Your task to perform on an android device: allow notifications from all sites in the chrome app Image 0: 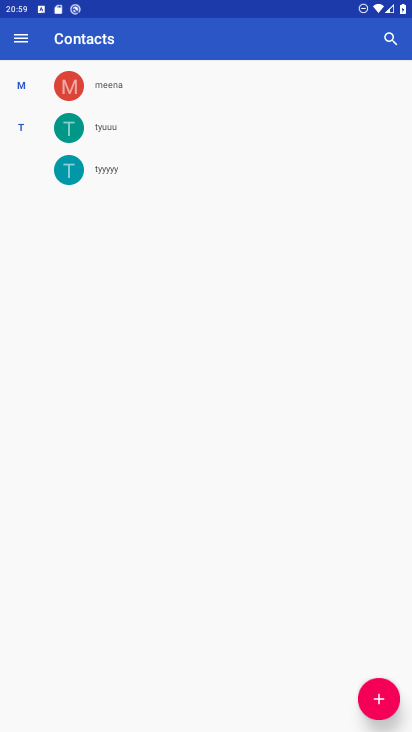
Step 0: press home button
Your task to perform on an android device: allow notifications from all sites in the chrome app Image 1: 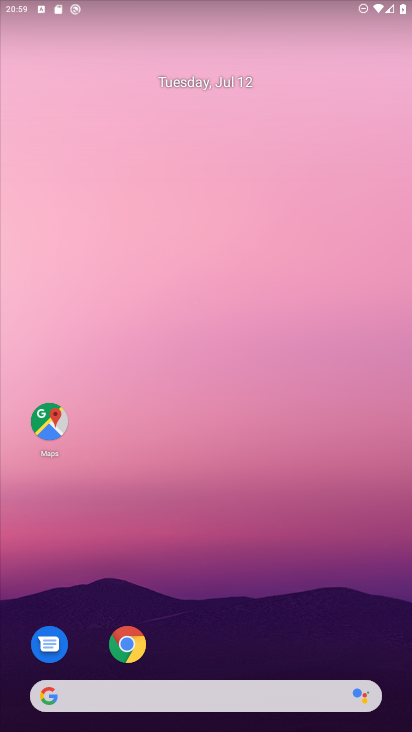
Step 1: click (124, 645)
Your task to perform on an android device: allow notifications from all sites in the chrome app Image 2: 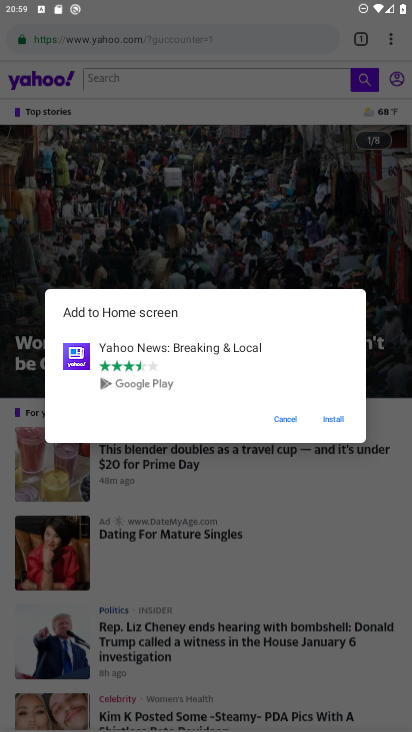
Step 2: click (281, 417)
Your task to perform on an android device: allow notifications from all sites in the chrome app Image 3: 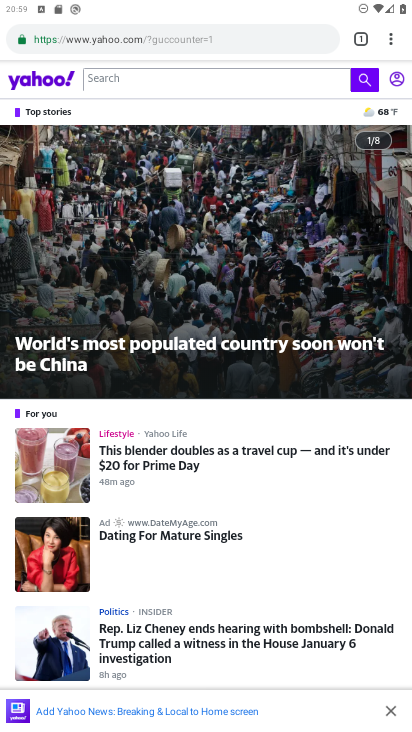
Step 3: click (388, 39)
Your task to perform on an android device: allow notifications from all sites in the chrome app Image 4: 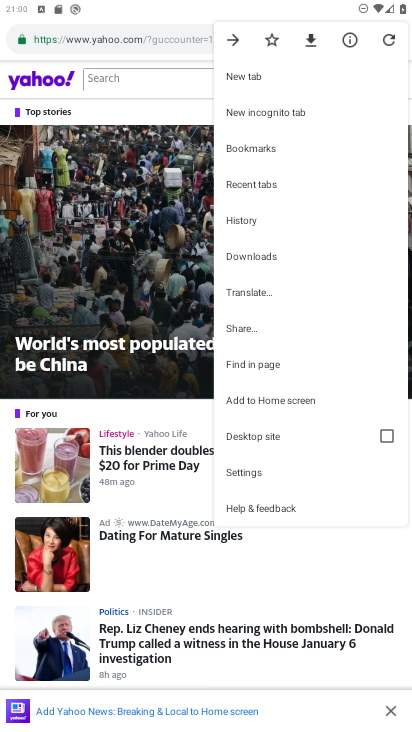
Step 4: click (250, 474)
Your task to perform on an android device: allow notifications from all sites in the chrome app Image 5: 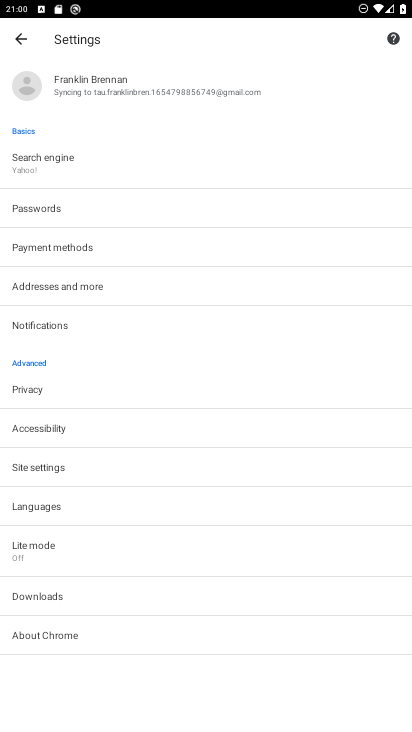
Step 5: click (36, 459)
Your task to perform on an android device: allow notifications from all sites in the chrome app Image 6: 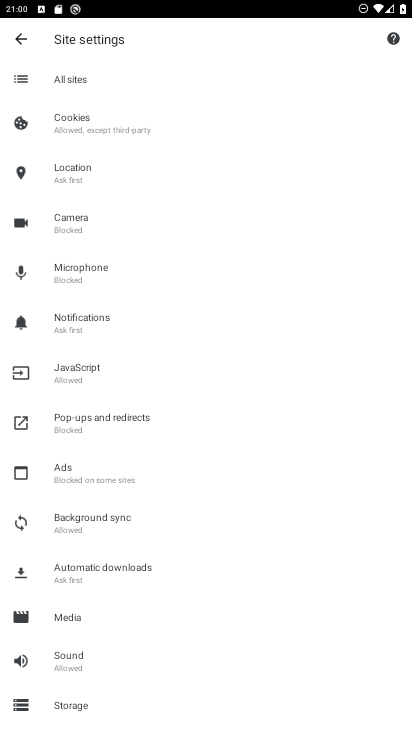
Step 6: click (63, 317)
Your task to perform on an android device: allow notifications from all sites in the chrome app Image 7: 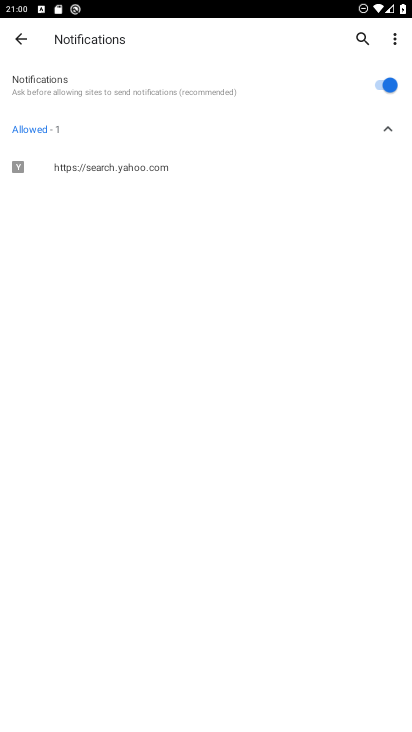
Step 7: task complete